Your task to perform on an android device: make emails show in primary in the gmail app Image 0: 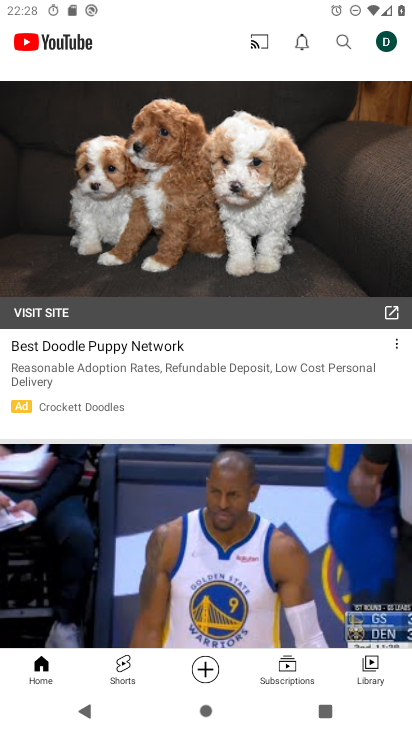
Step 0: press home button
Your task to perform on an android device: make emails show in primary in the gmail app Image 1: 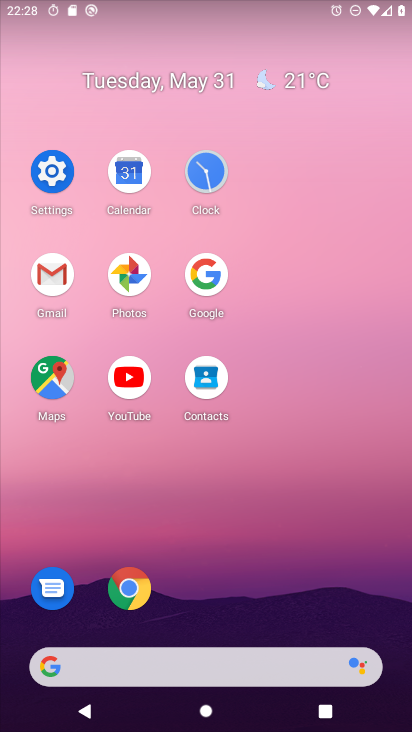
Step 1: click (44, 291)
Your task to perform on an android device: make emails show in primary in the gmail app Image 2: 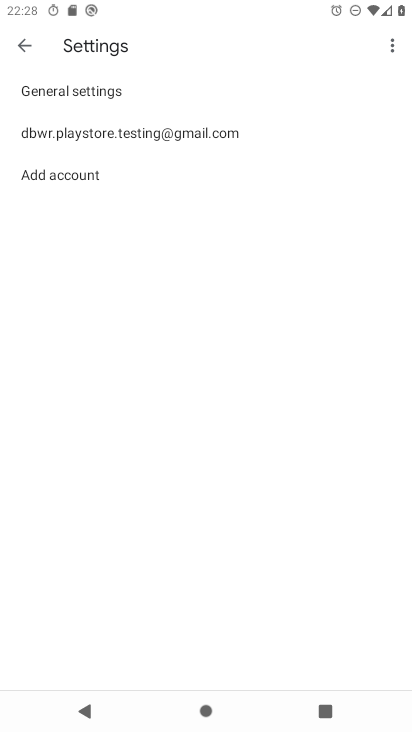
Step 2: click (23, 59)
Your task to perform on an android device: make emails show in primary in the gmail app Image 3: 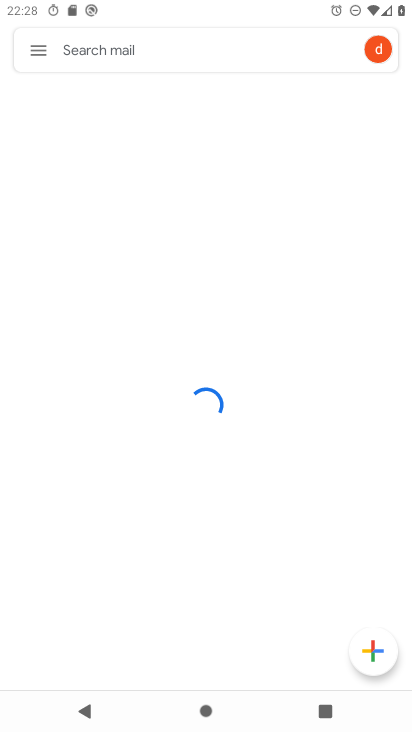
Step 3: click (28, 39)
Your task to perform on an android device: make emails show in primary in the gmail app Image 4: 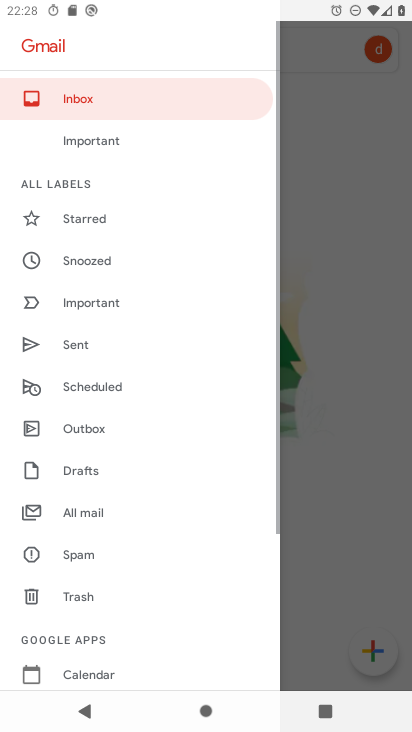
Step 4: drag from (110, 631) to (142, 238)
Your task to perform on an android device: make emails show in primary in the gmail app Image 5: 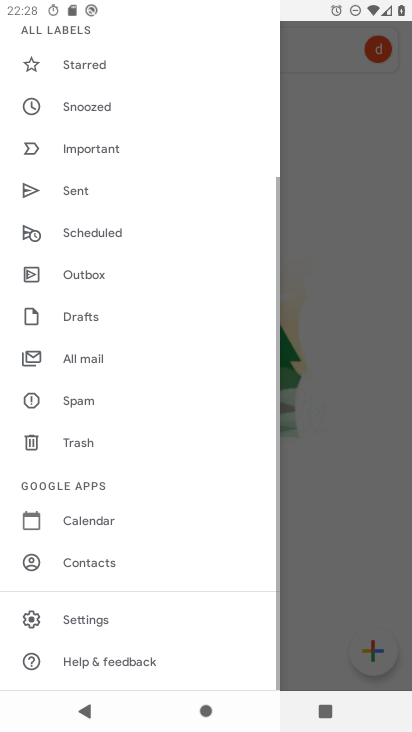
Step 5: click (76, 624)
Your task to perform on an android device: make emails show in primary in the gmail app Image 6: 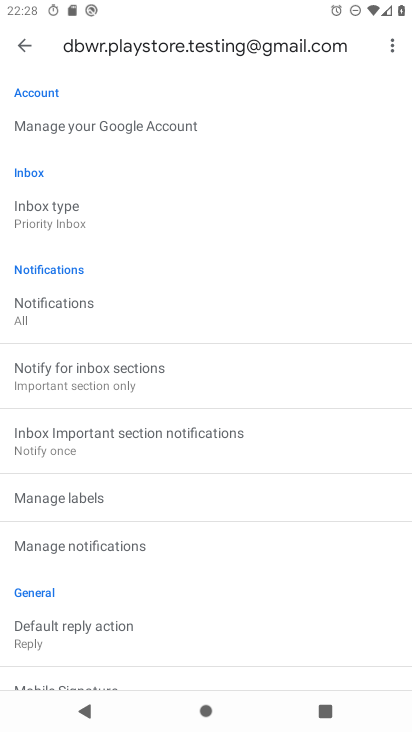
Step 6: click (71, 214)
Your task to perform on an android device: make emails show in primary in the gmail app Image 7: 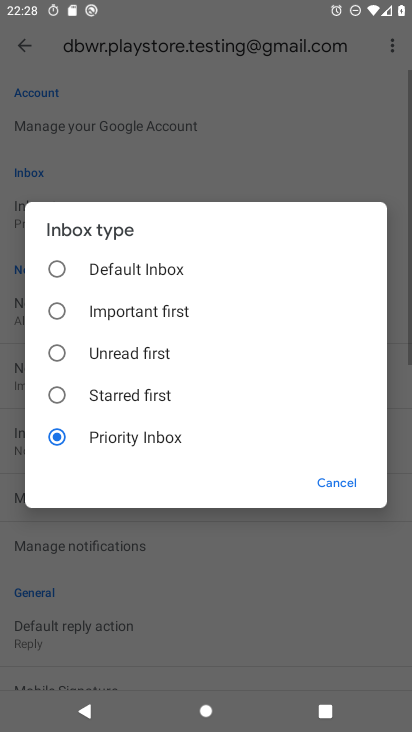
Step 7: click (99, 268)
Your task to perform on an android device: make emails show in primary in the gmail app Image 8: 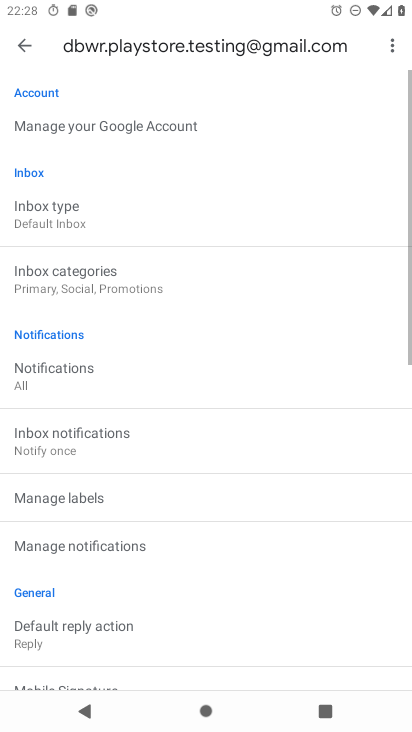
Step 8: click (99, 268)
Your task to perform on an android device: make emails show in primary in the gmail app Image 9: 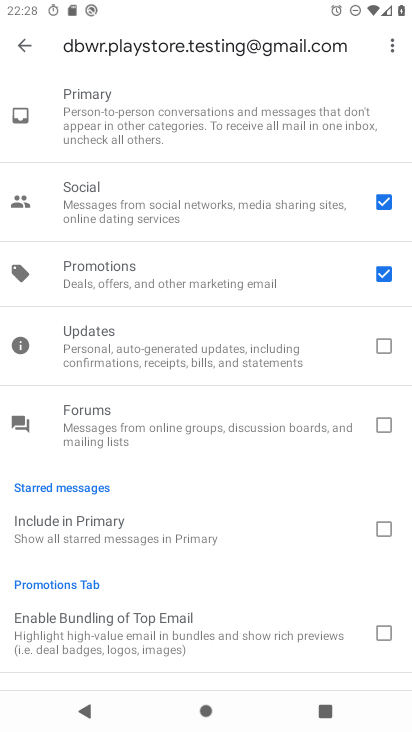
Step 9: click (314, 211)
Your task to perform on an android device: make emails show in primary in the gmail app Image 10: 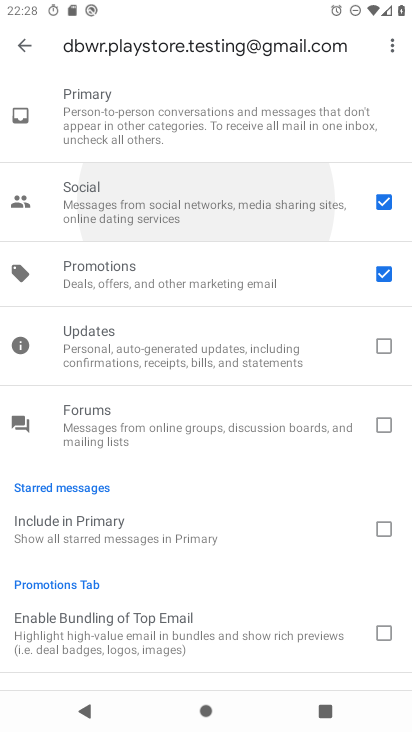
Step 10: click (322, 267)
Your task to perform on an android device: make emails show in primary in the gmail app Image 11: 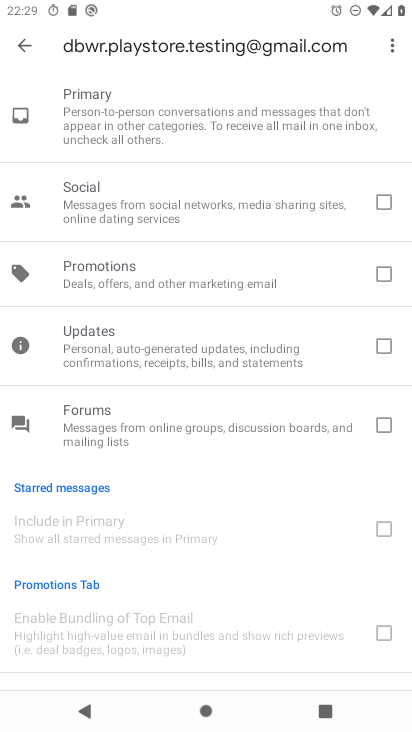
Step 11: task complete